Your task to perform on an android device: set an alarm Image 0: 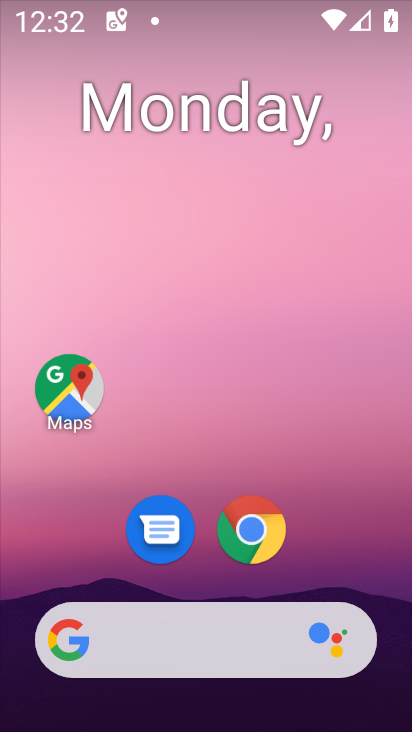
Step 0: drag from (202, 641) to (217, 99)
Your task to perform on an android device: set an alarm Image 1: 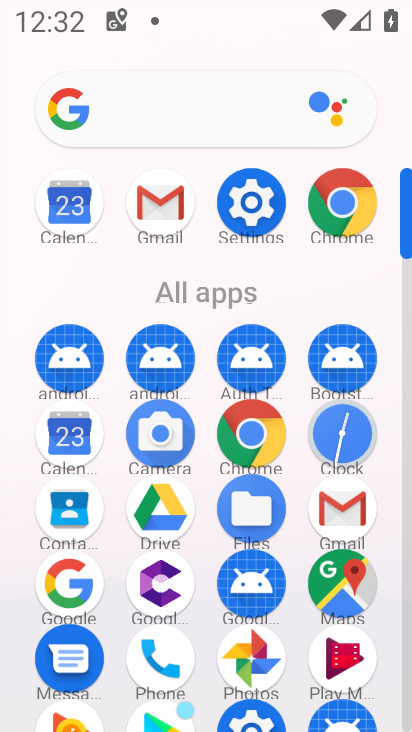
Step 1: click (359, 425)
Your task to perform on an android device: set an alarm Image 2: 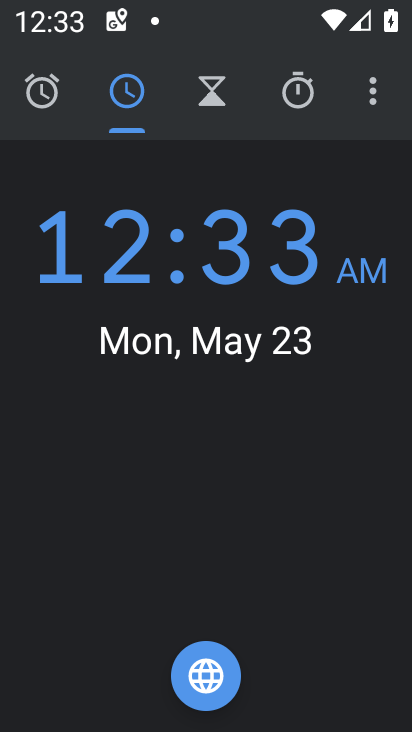
Step 2: click (42, 113)
Your task to perform on an android device: set an alarm Image 3: 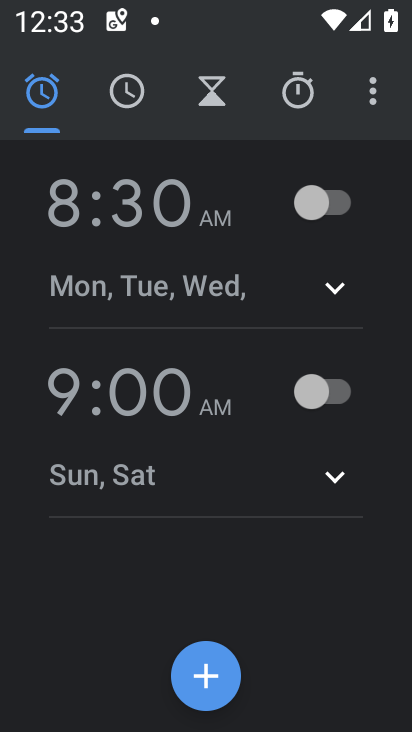
Step 3: click (219, 678)
Your task to perform on an android device: set an alarm Image 4: 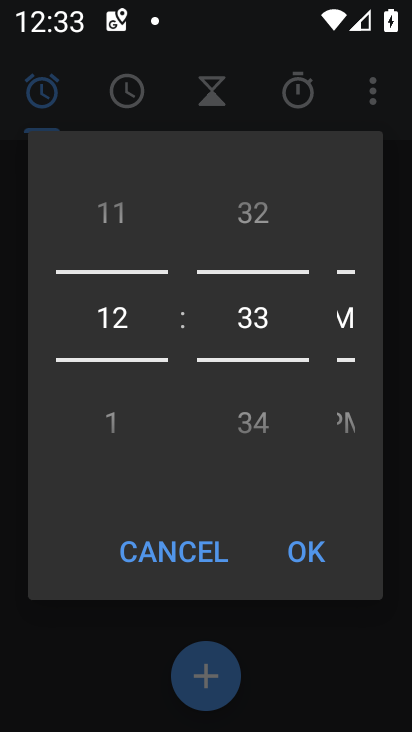
Step 4: click (314, 546)
Your task to perform on an android device: set an alarm Image 5: 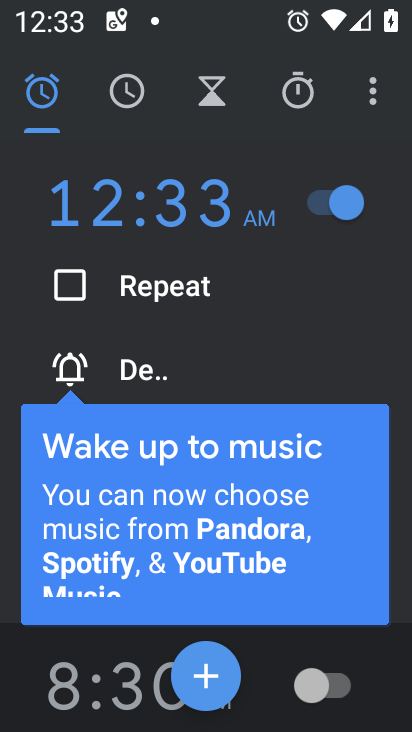
Step 5: task complete